Your task to perform on an android device: Go to accessibility settings Image 0: 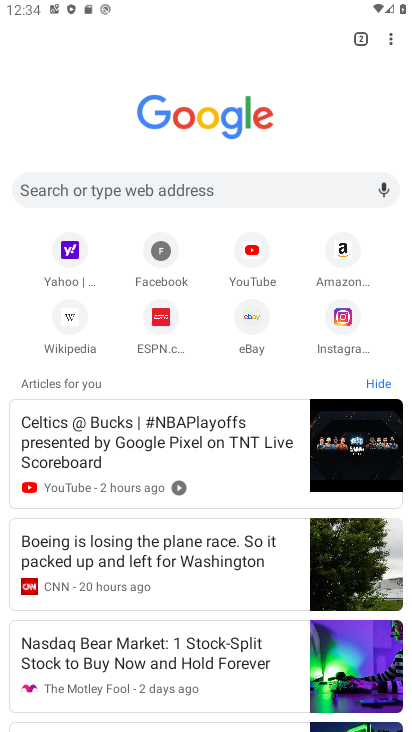
Step 0: press home button
Your task to perform on an android device: Go to accessibility settings Image 1: 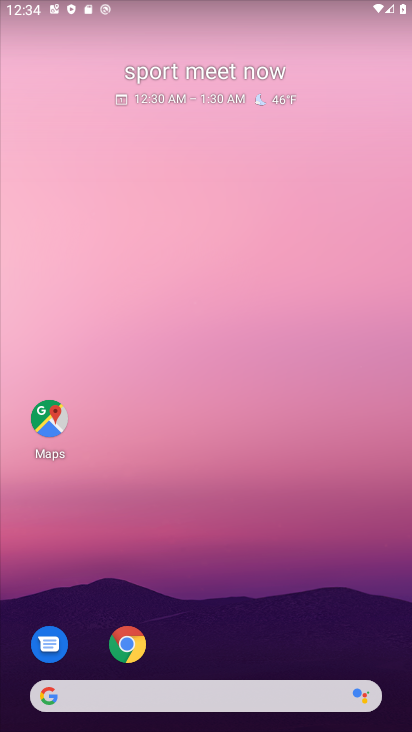
Step 1: drag from (42, 604) to (289, 198)
Your task to perform on an android device: Go to accessibility settings Image 2: 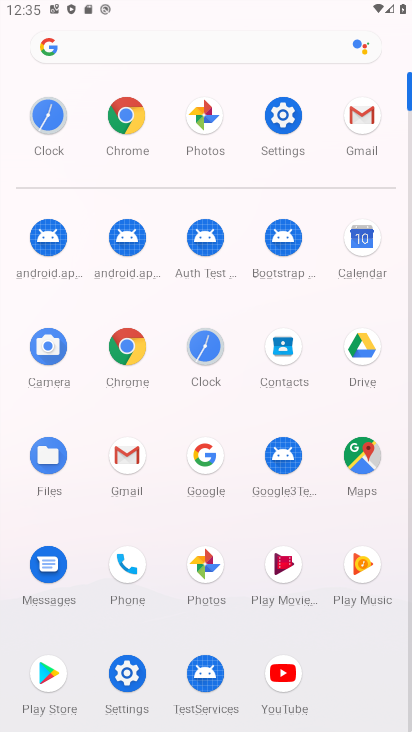
Step 2: click (280, 120)
Your task to perform on an android device: Go to accessibility settings Image 3: 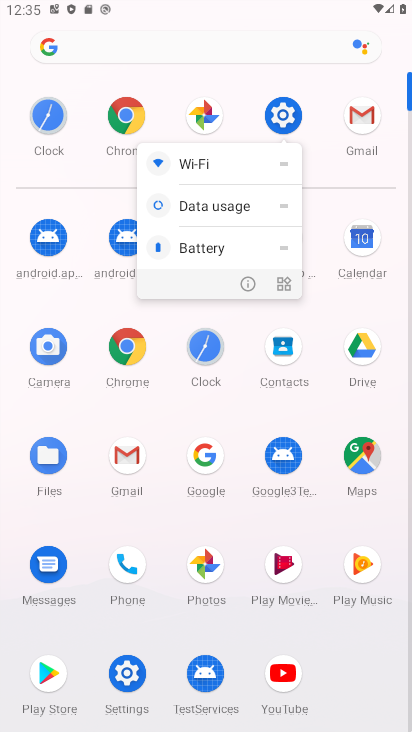
Step 3: click (280, 120)
Your task to perform on an android device: Go to accessibility settings Image 4: 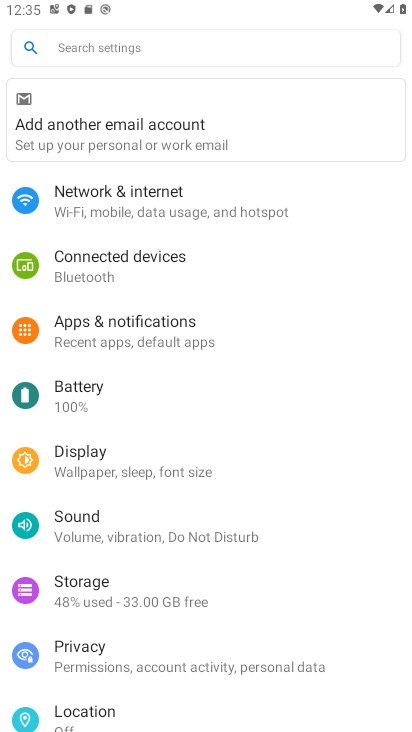
Step 4: drag from (130, 624) to (271, 230)
Your task to perform on an android device: Go to accessibility settings Image 5: 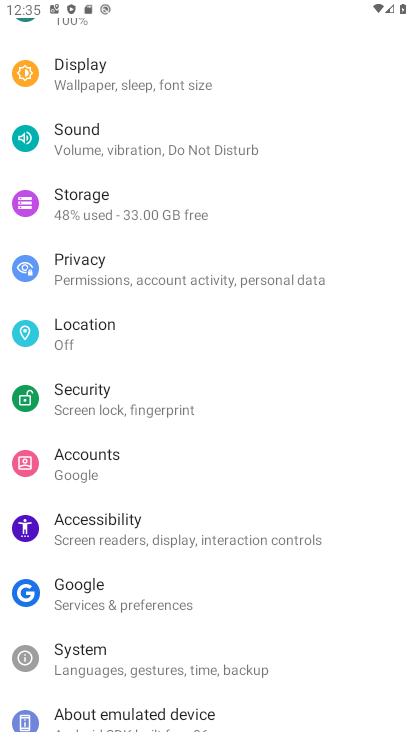
Step 5: click (151, 521)
Your task to perform on an android device: Go to accessibility settings Image 6: 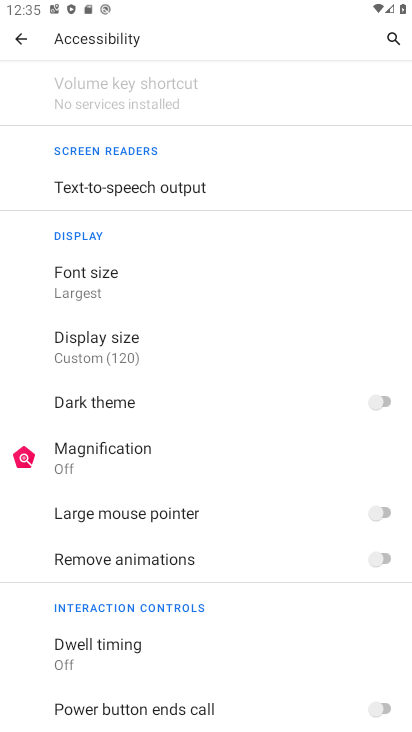
Step 6: task complete